Your task to perform on an android device: When is my next appointment? Image 0: 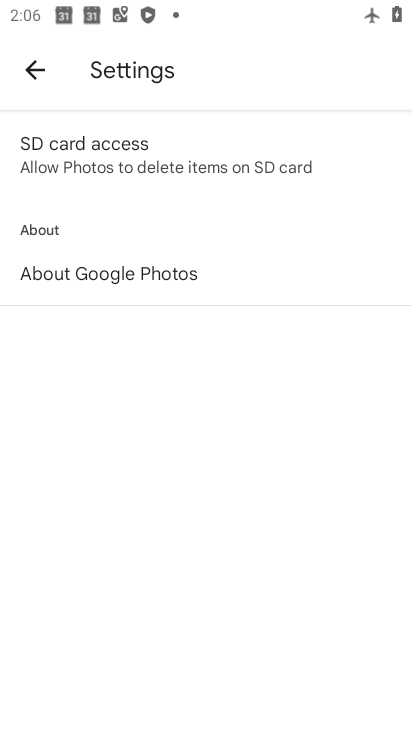
Step 0: press home button
Your task to perform on an android device: When is my next appointment? Image 1: 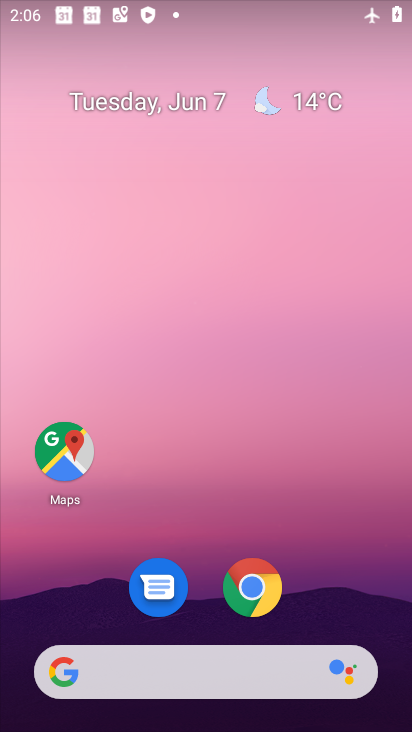
Step 1: drag from (129, 529) to (182, 174)
Your task to perform on an android device: When is my next appointment? Image 2: 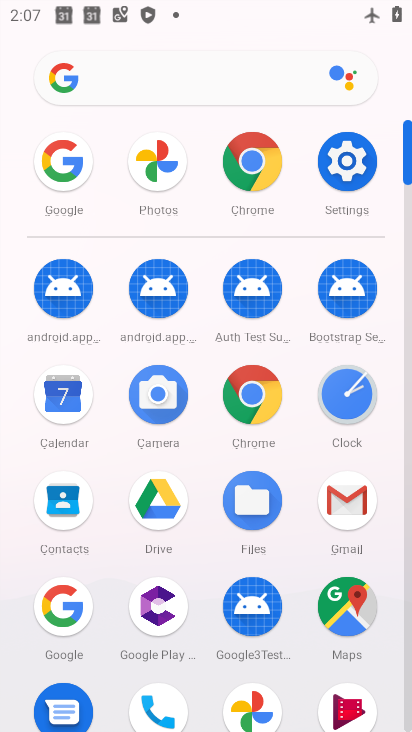
Step 2: click (71, 413)
Your task to perform on an android device: When is my next appointment? Image 3: 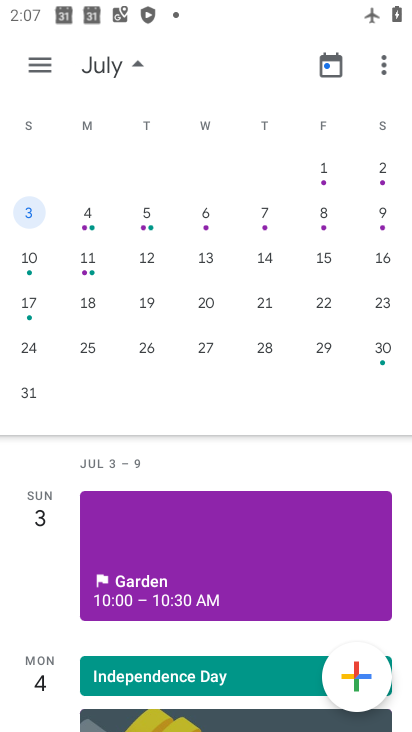
Step 3: click (50, 77)
Your task to perform on an android device: When is my next appointment? Image 4: 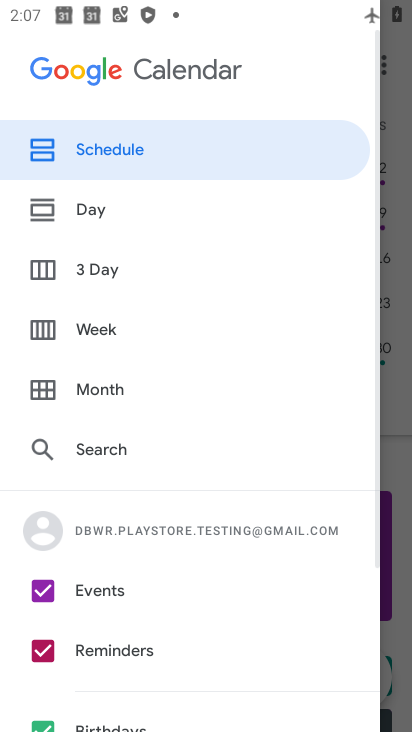
Step 4: drag from (155, 563) to (185, 192)
Your task to perform on an android device: When is my next appointment? Image 5: 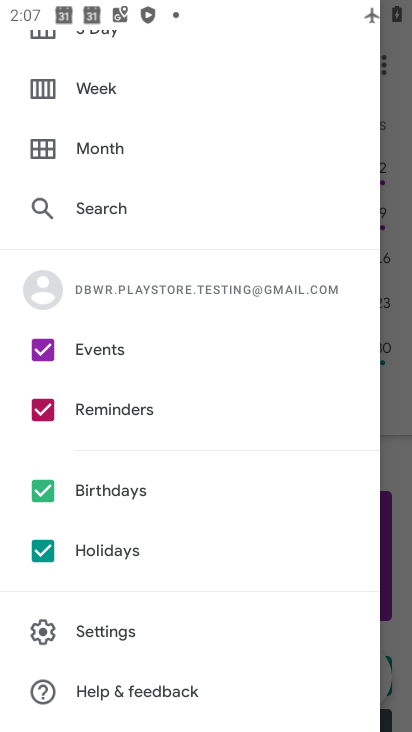
Step 5: click (46, 540)
Your task to perform on an android device: When is my next appointment? Image 6: 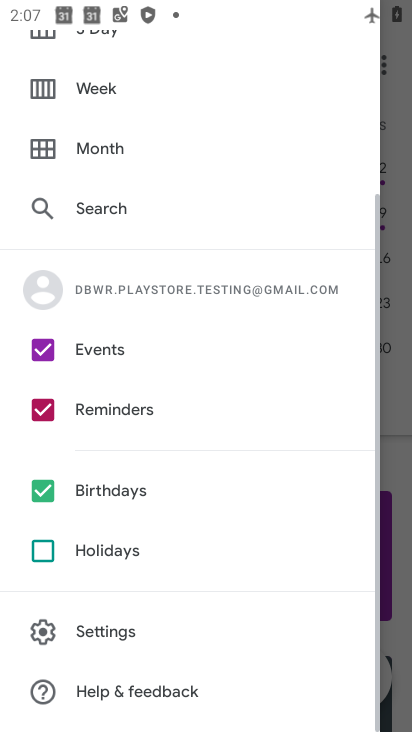
Step 6: click (50, 490)
Your task to perform on an android device: When is my next appointment? Image 7: 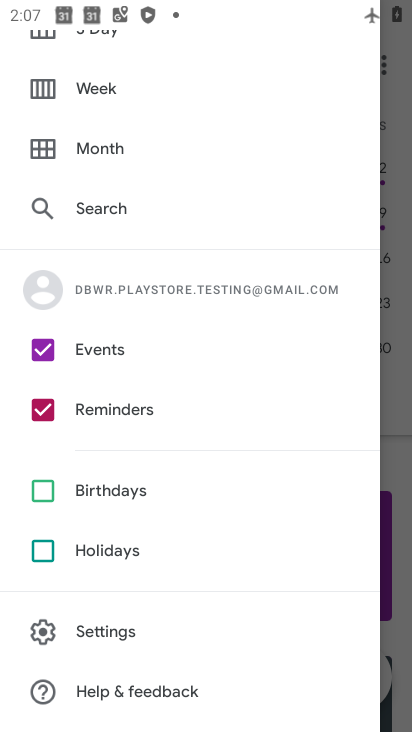
Step 7: click (390, 338)
Your task to perform on an android device: When is my next appointment? Image 8: 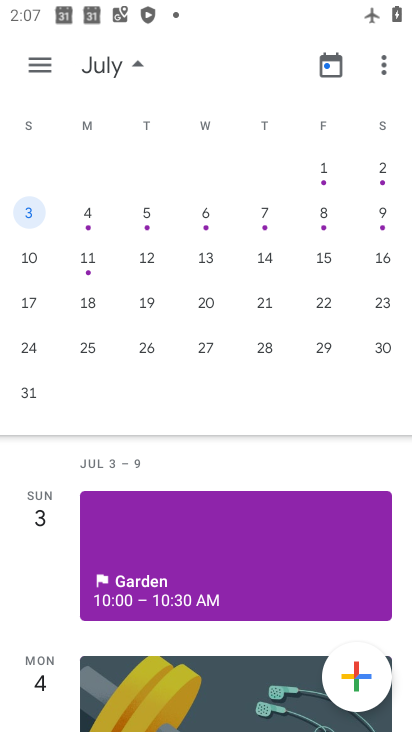
Step 8: task complete